Your task to perform on an android device: open sync settings in chrome Image 0: 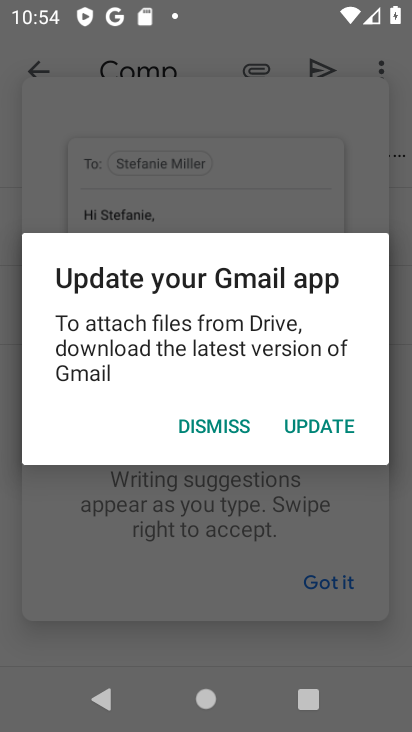
Step 0: press home button
Your task to perform on an android device: open sync settings in chrome Image 1: 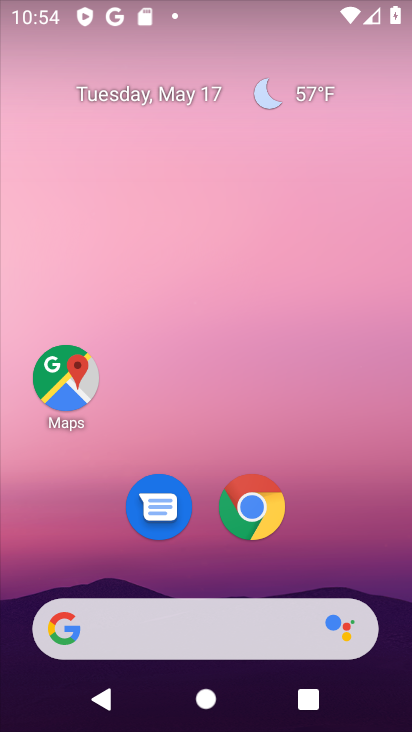
Step 1: click (258, 527)
Your task to perform on an android device: open sync settings in chrome Image 2: 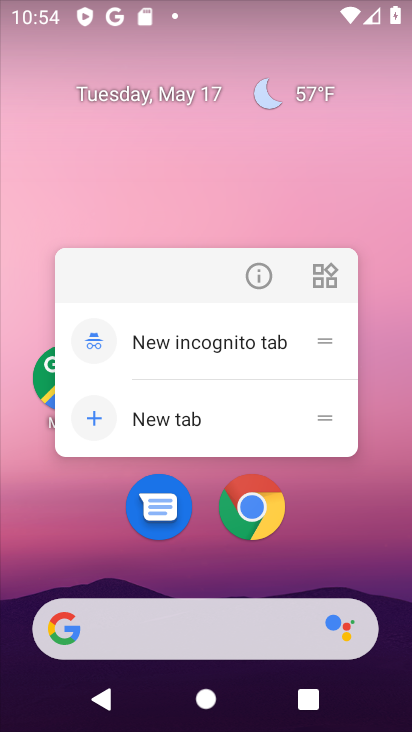
Step 2: click (265, 506)
Your task to perform on an android device: open sync settings in chrome Image 3: 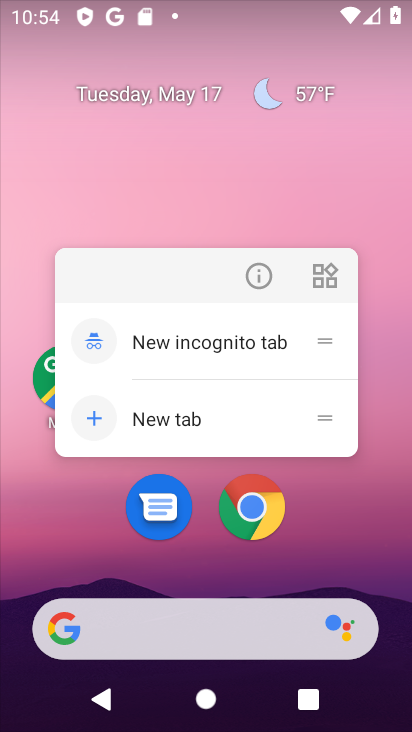
Step 3: click (253, 520)
Your task to perform on an android device: open sync settings in chrome Image 4: 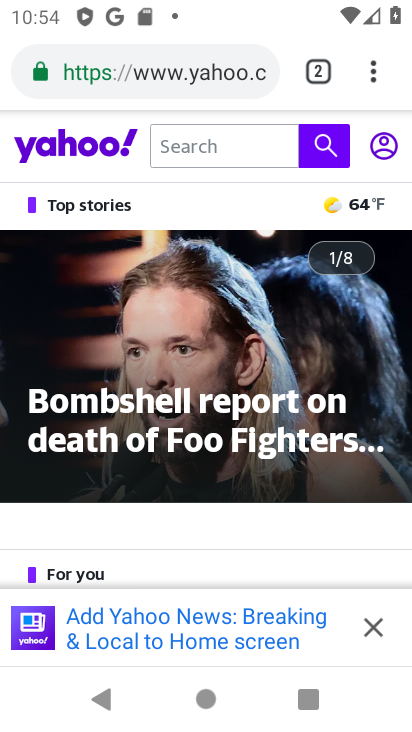
Step 4: drag from (387, 84) to (245, 500)
Your task to perform on an android device: open sync settings in chrome Image 5: 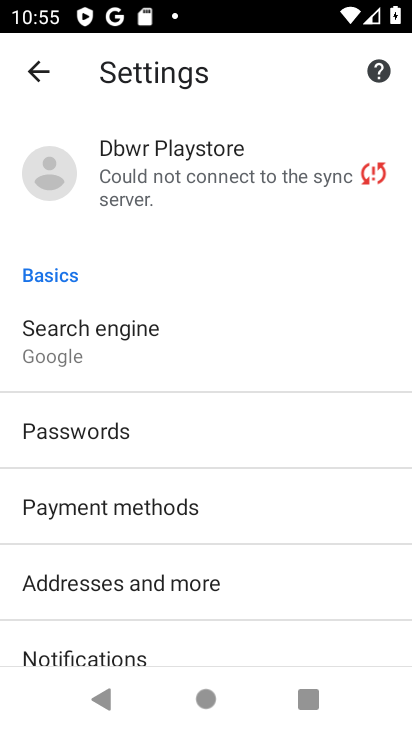
Step 5: click (283, 204)
Your task to perform on an android device: open sync settings in chrome Image 6: 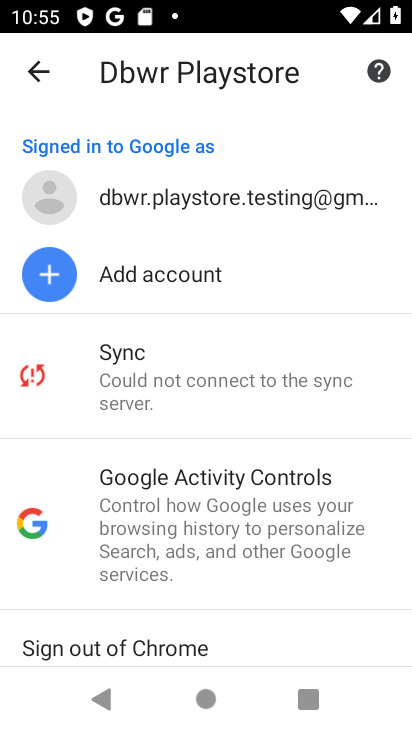
Step 6: click (187, 389)
Your task to perform on an android device: open sync settings in chrome Image 7: 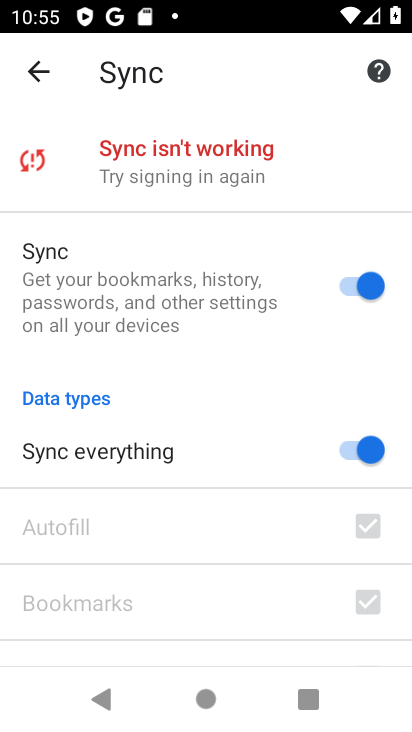
Step 7: task complete